Your task to perform on an android device: Add "duracell triple a" to the cart on amazon, then select checkout. Image 0: 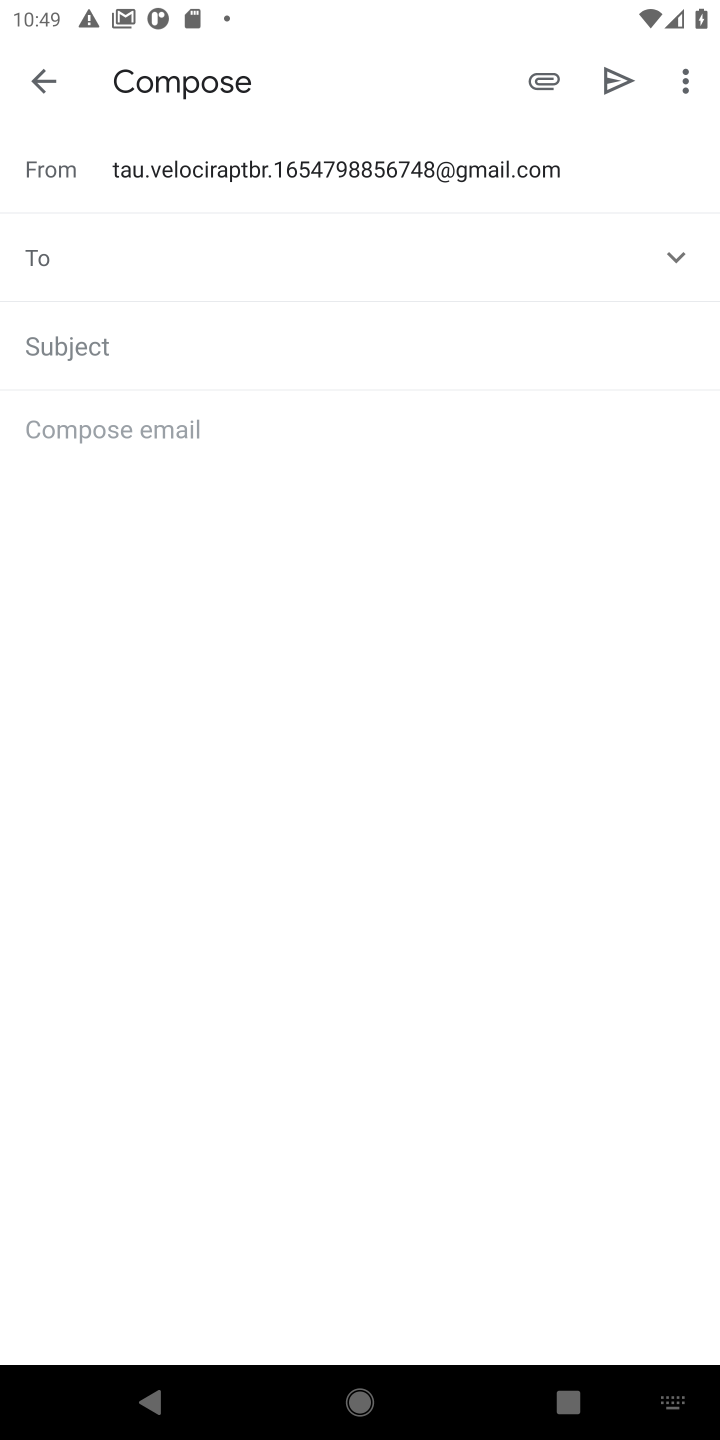
Step 0: press home button
Your task to perform on an android device: Add "duracell triple a" to the cart on amazon, then select checkout. Image 1: 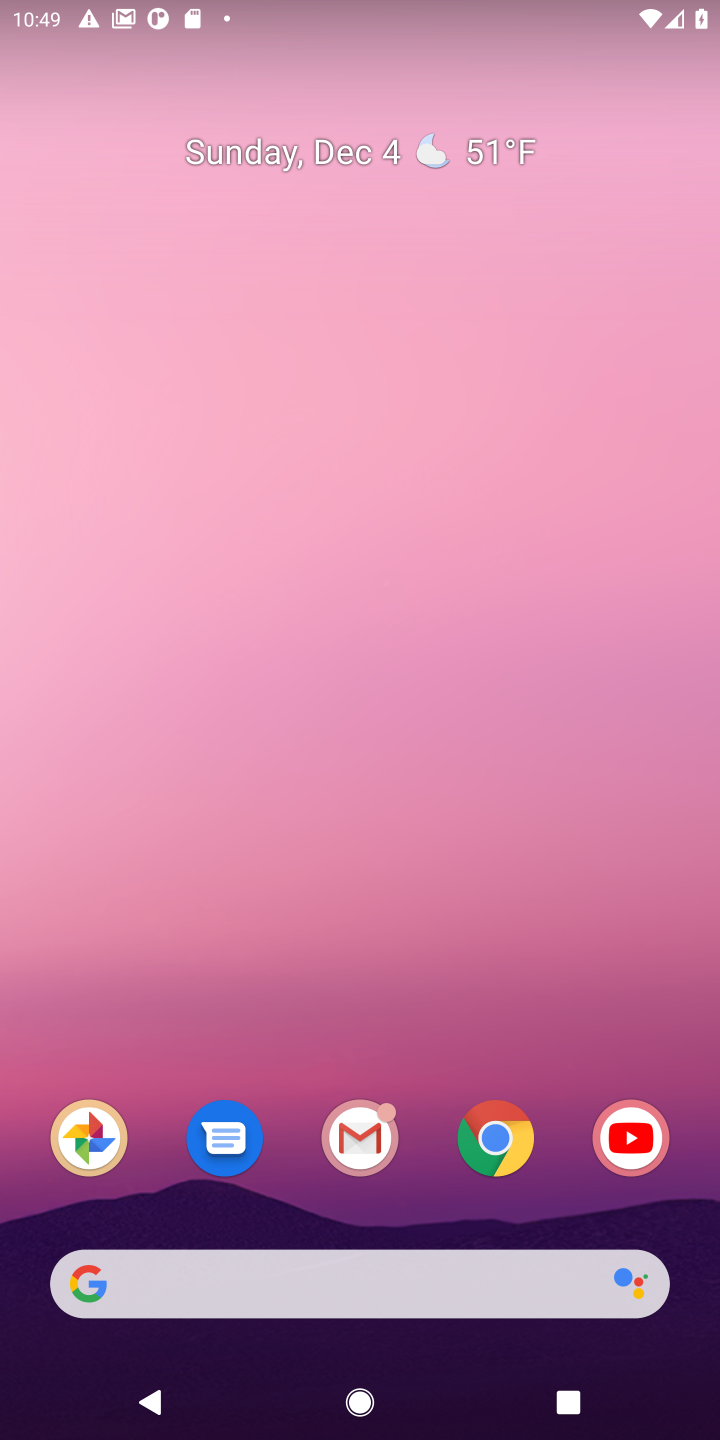
Step 1: click (517, 1143)
Your task to perform on an android device: Add "duracell triple a" to the cart on amazon, then select checkout. Image 2: 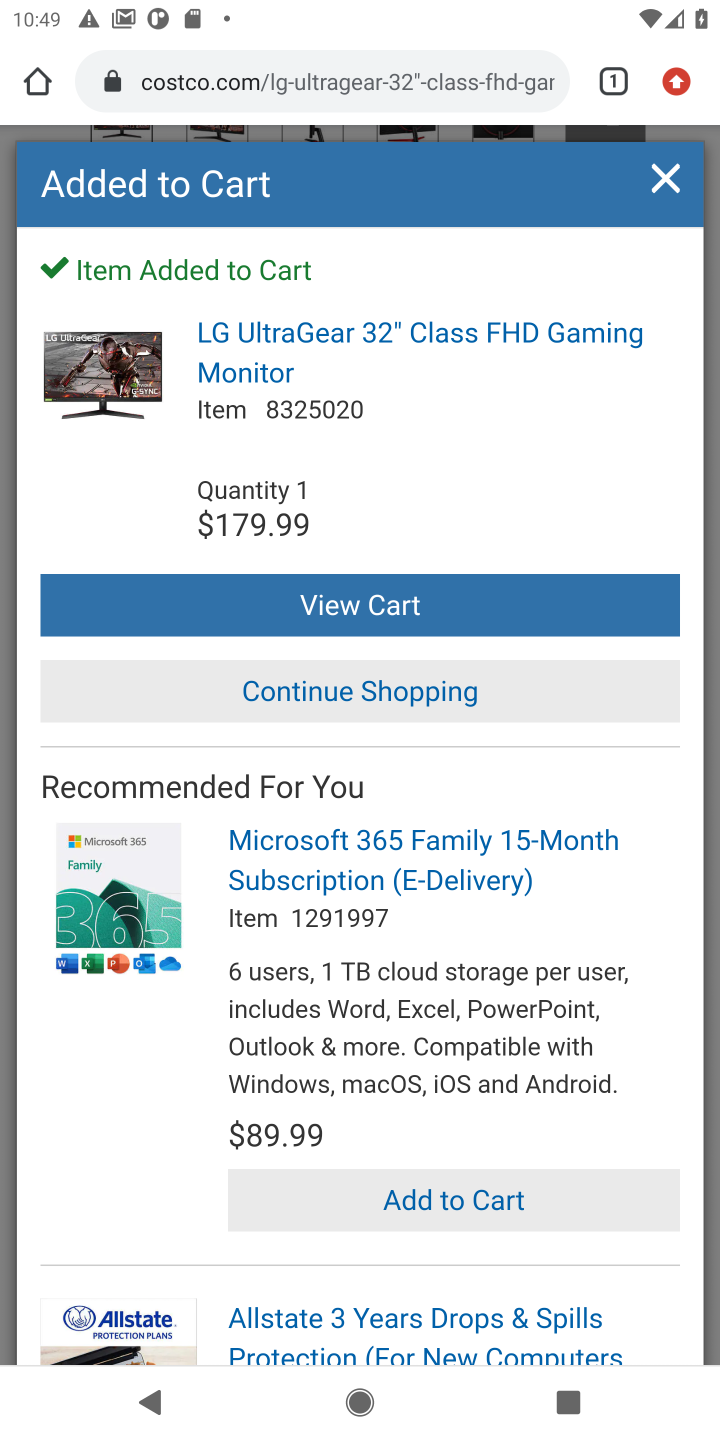
Step 2: click (434, 74)
Your task to perform on an android device: Add "duracell triple a" to the cart on amazon, then select checkout. Image 3: 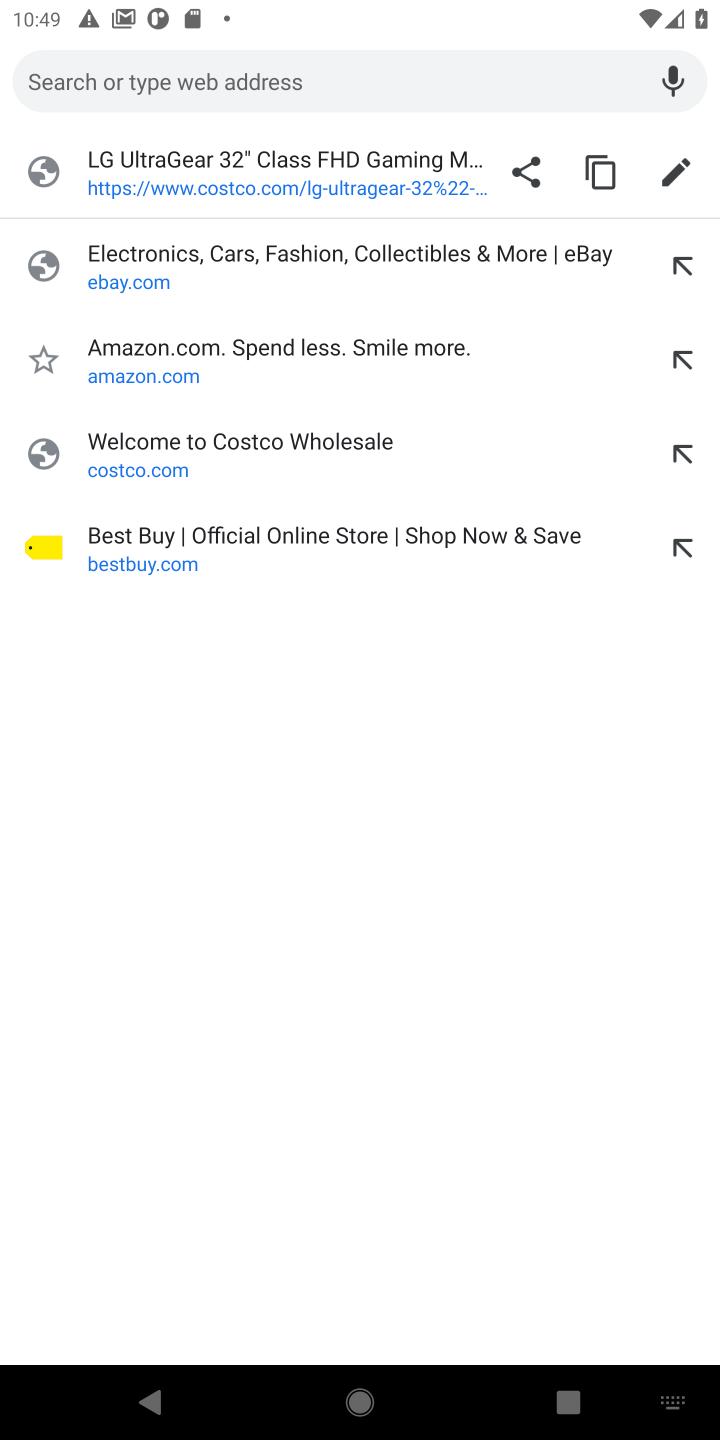
Step 3: click (396, 336)
Your task to perform on an android device: Add "duracell triple a" to the cart on amazon, then select checkout. Image 4: 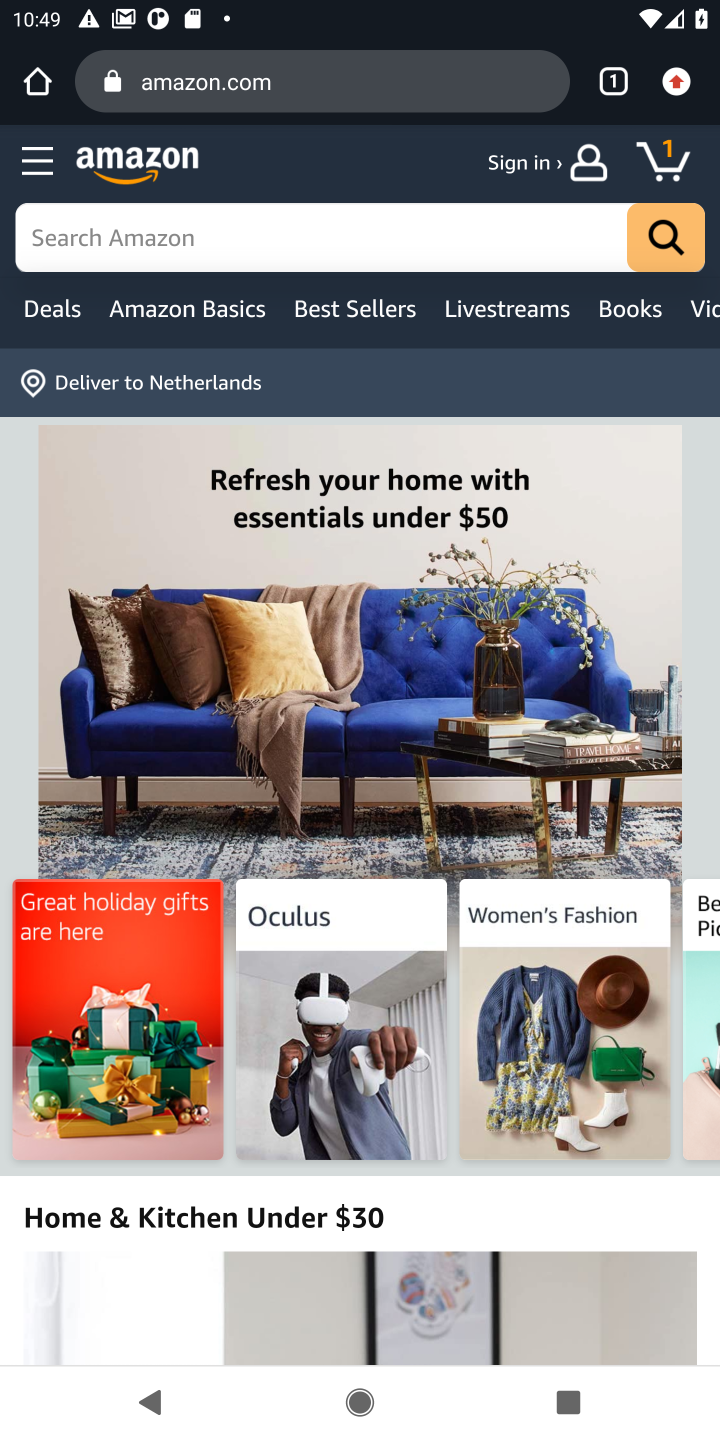
Step 4: click (373, 228)
Your task to perform on an android device: Add "duracell triple a" to the cart on amazon, then select checkout. Image 5: 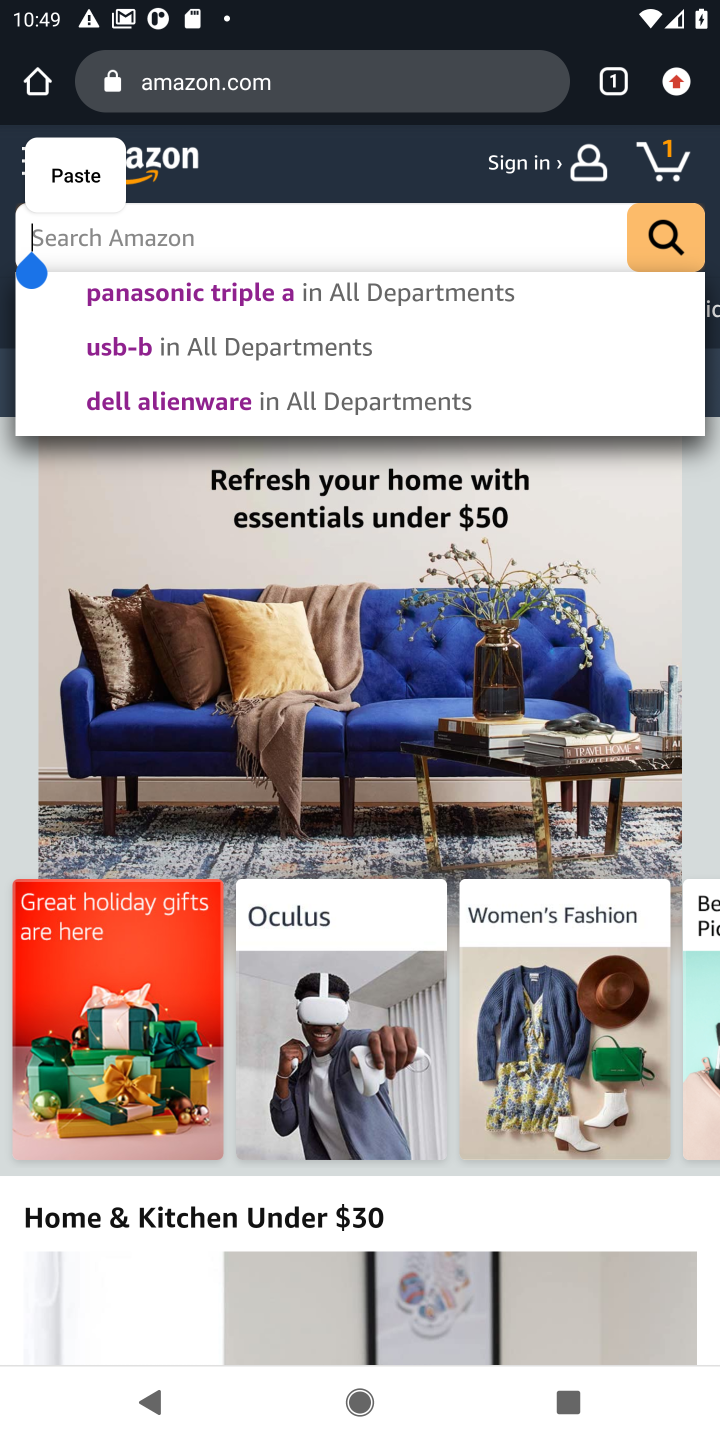
Step 5: press enter
Your task to perform on an android device: Add "duracell triple a" to the cart on amazon, then select checkout. Image 6: 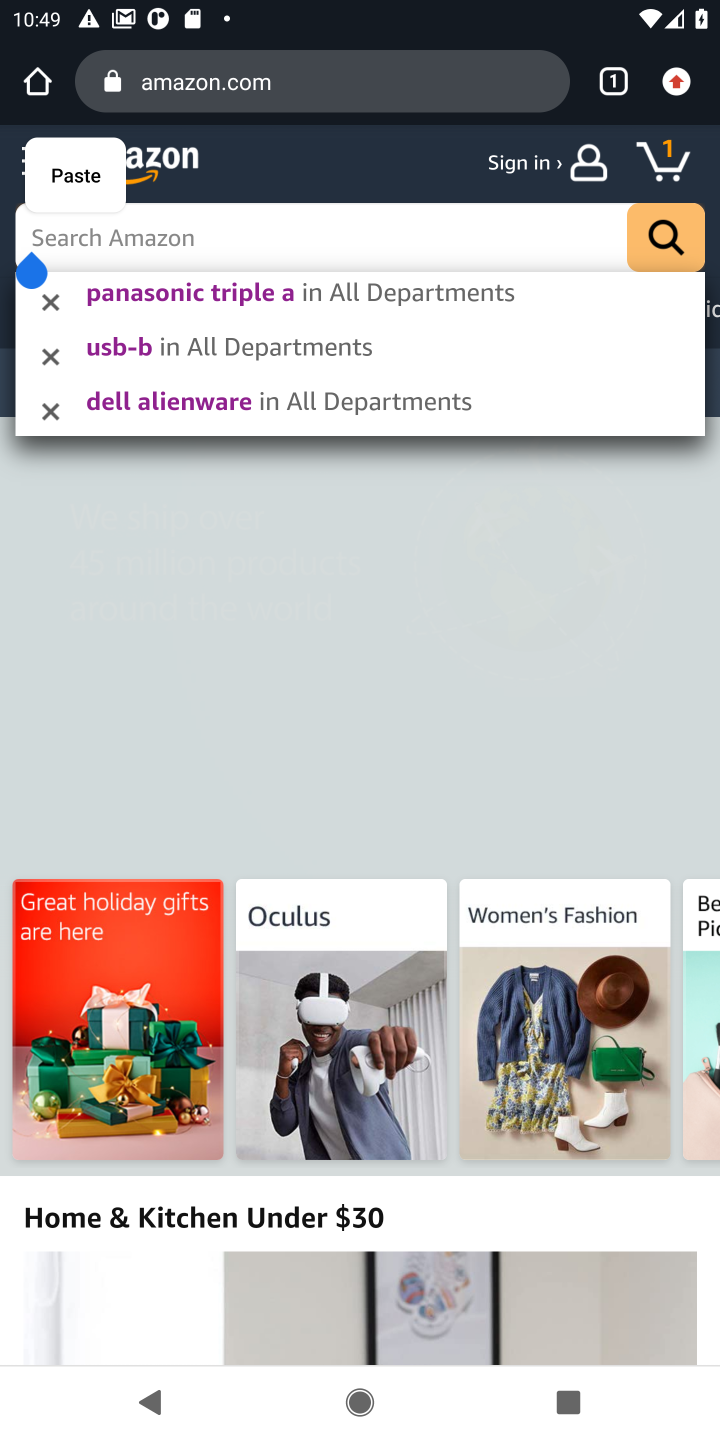
Step 6: type "duracell triple a"
Your task to perform on an android device: Add "duracell triple a" to the cart on amazon, then select checkout. Image 7: 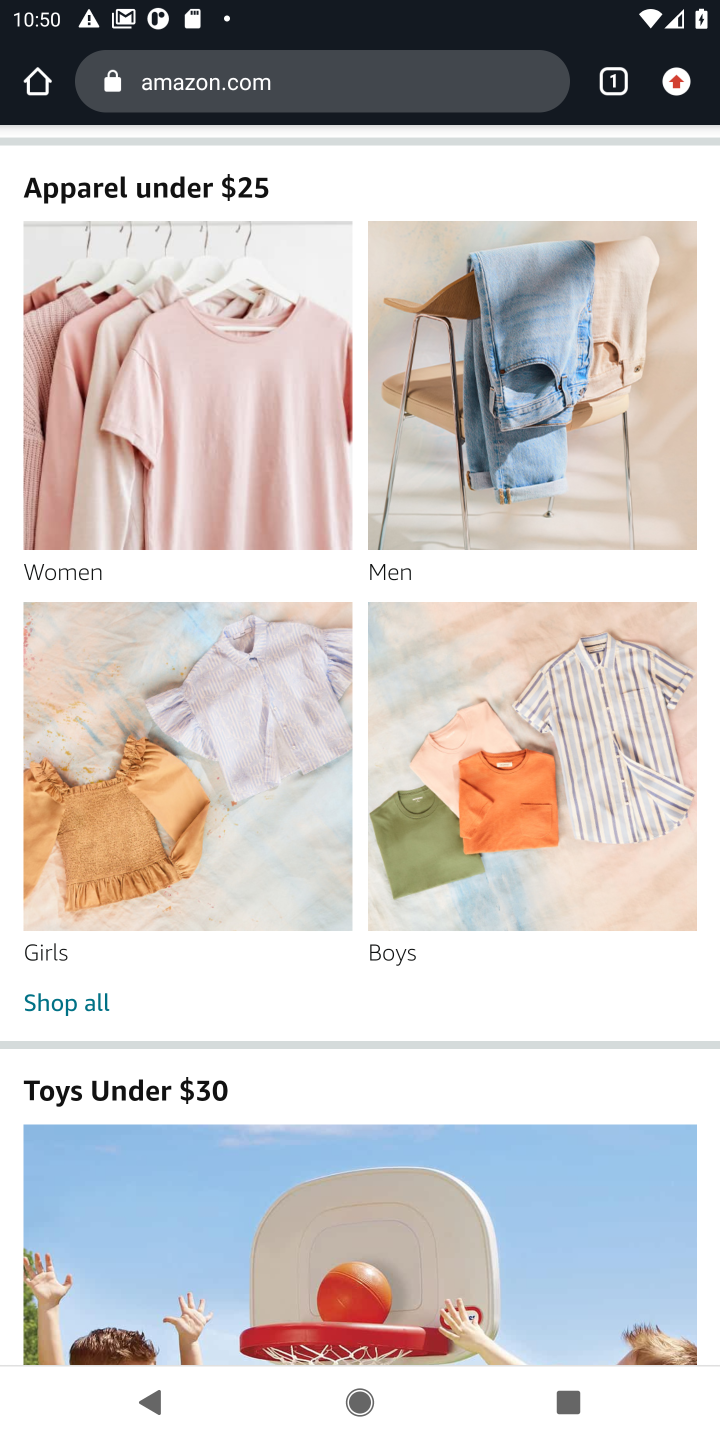
Step 7: drag from (386, 170) to (615, 903)
Your task to perform on an android device: Add "duracell triple a" to the cart on amazon, then select checkout. Image 8: 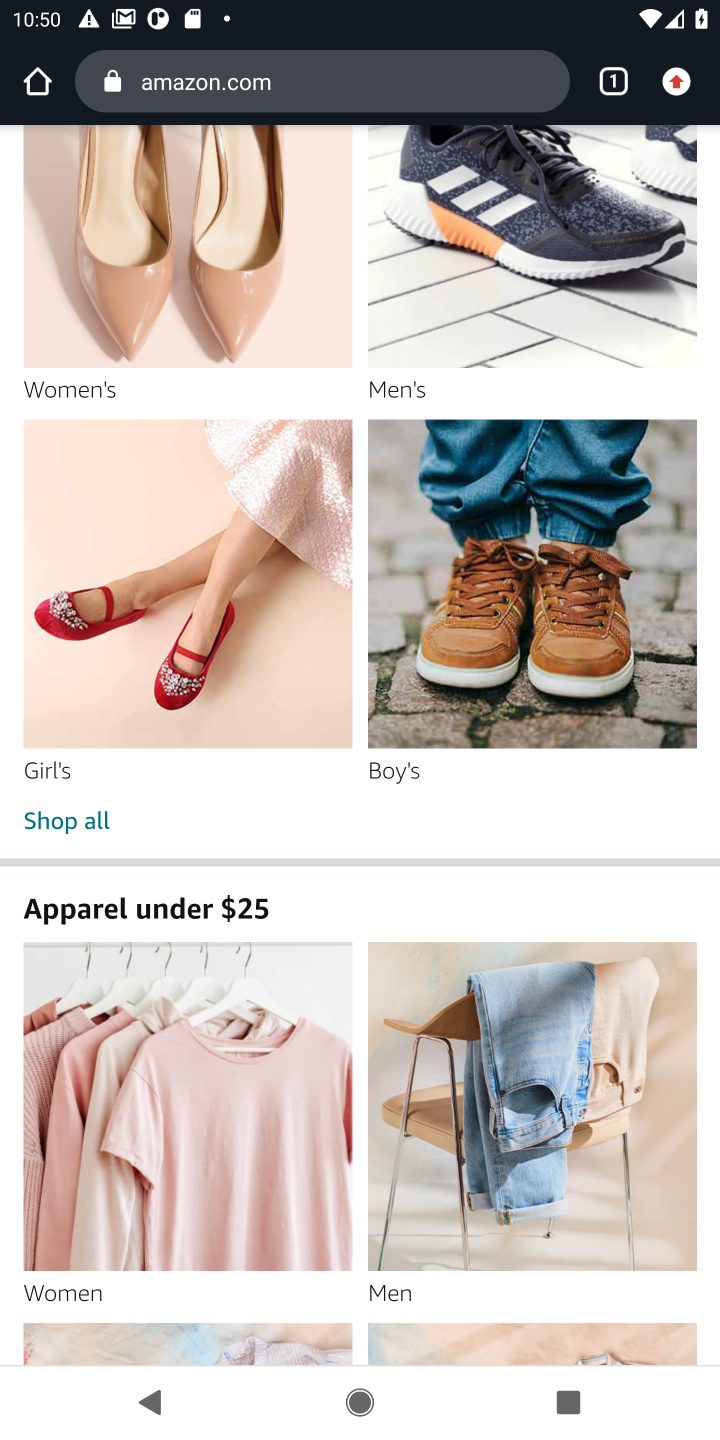
Step 8: click (406, 86)
Your task to perform on an android device: Add "duracell triple a" to the cart on amazon, then select checkout. Image 9: 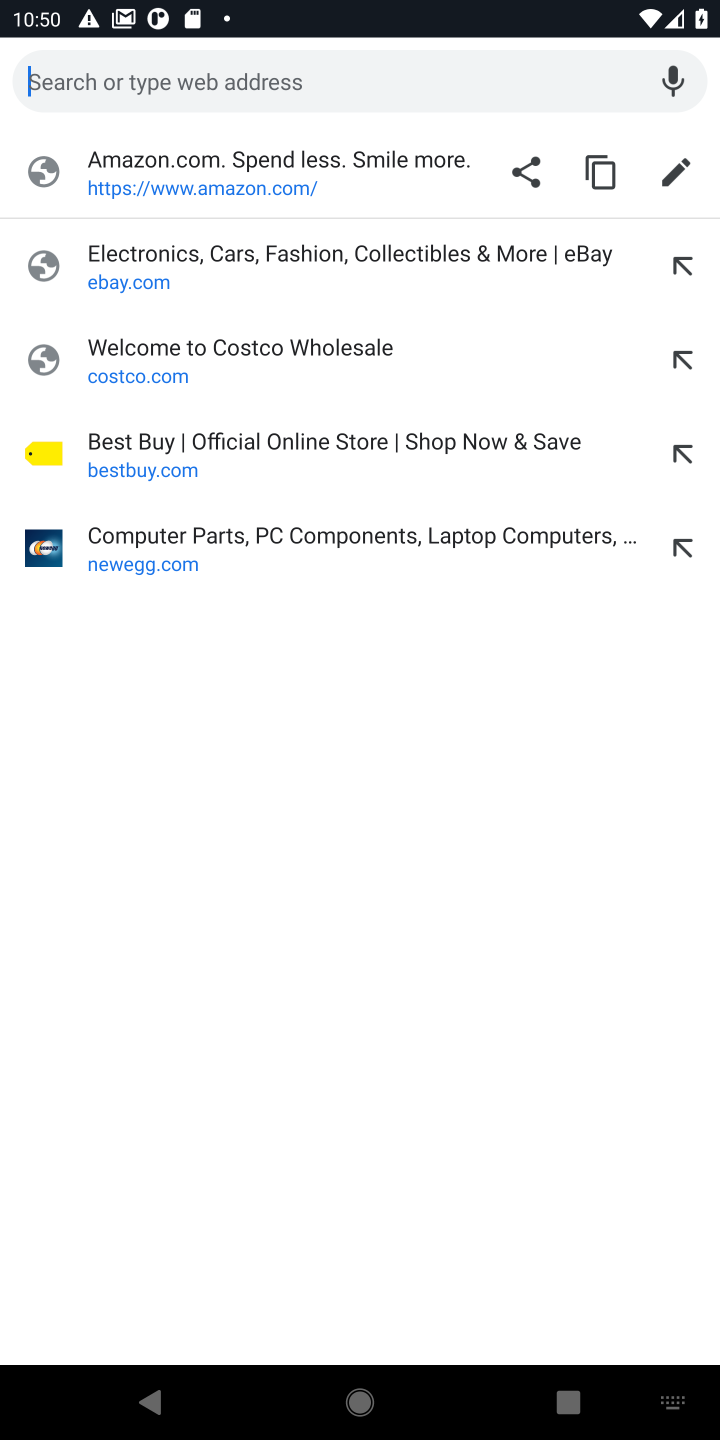
Step 9: click (225, 168)
Your task to perform on an android device: Add "duracell triple a" to the cart on amazon, then select checkout. Image 10: 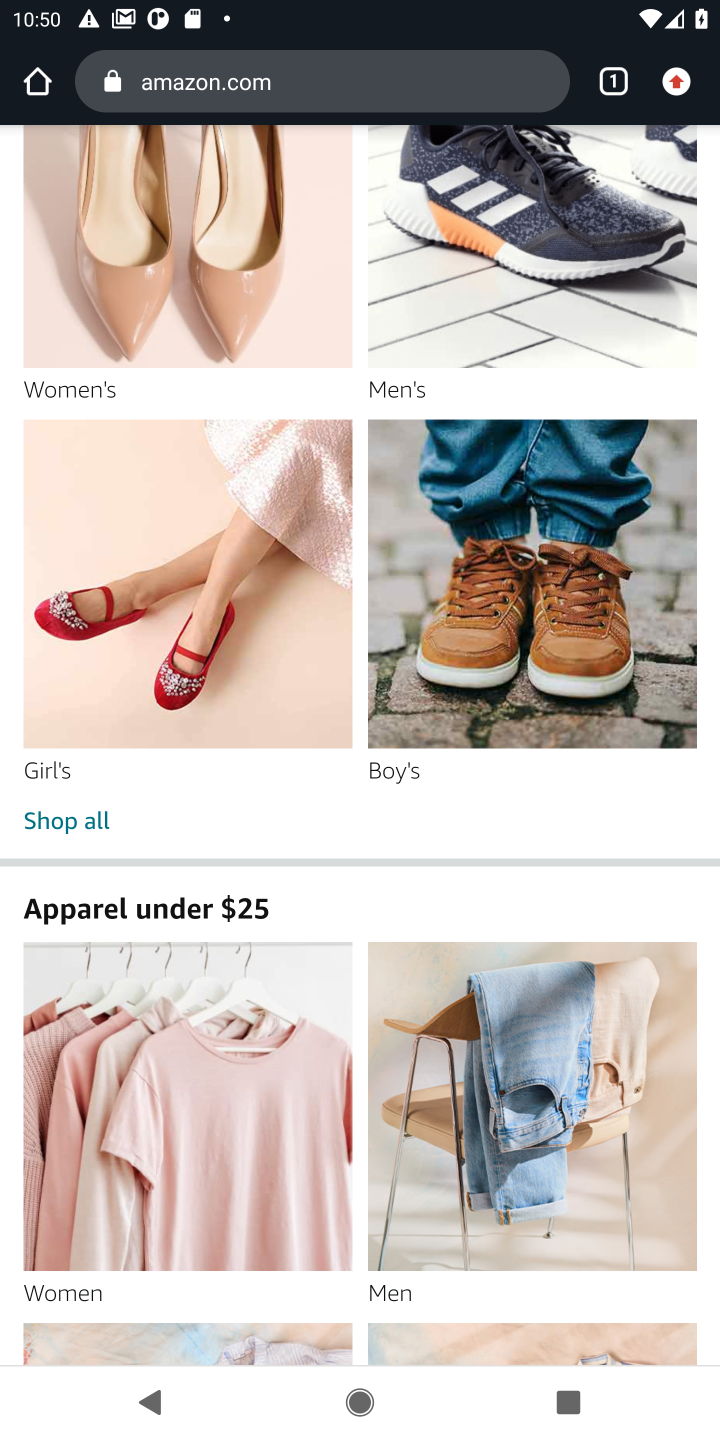
Step 10: click (380, 73)
Your task to perform on an android device: Add "duracell triple a" to the cart on amazon, then select checkout. Image 11: 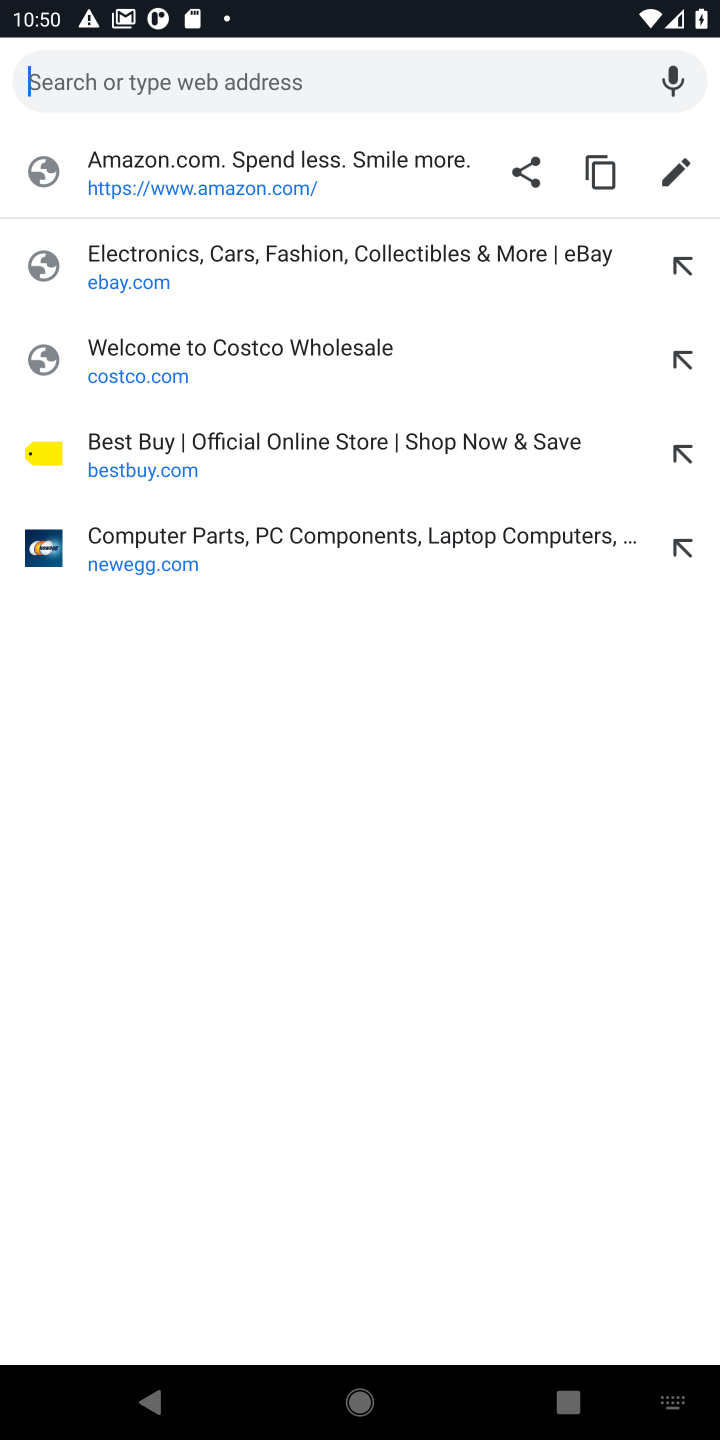
Step 11: press enter
Your task to perform on an android device: Add "duracell triple a" to the cart on amazon, then select checkout. Image 12: 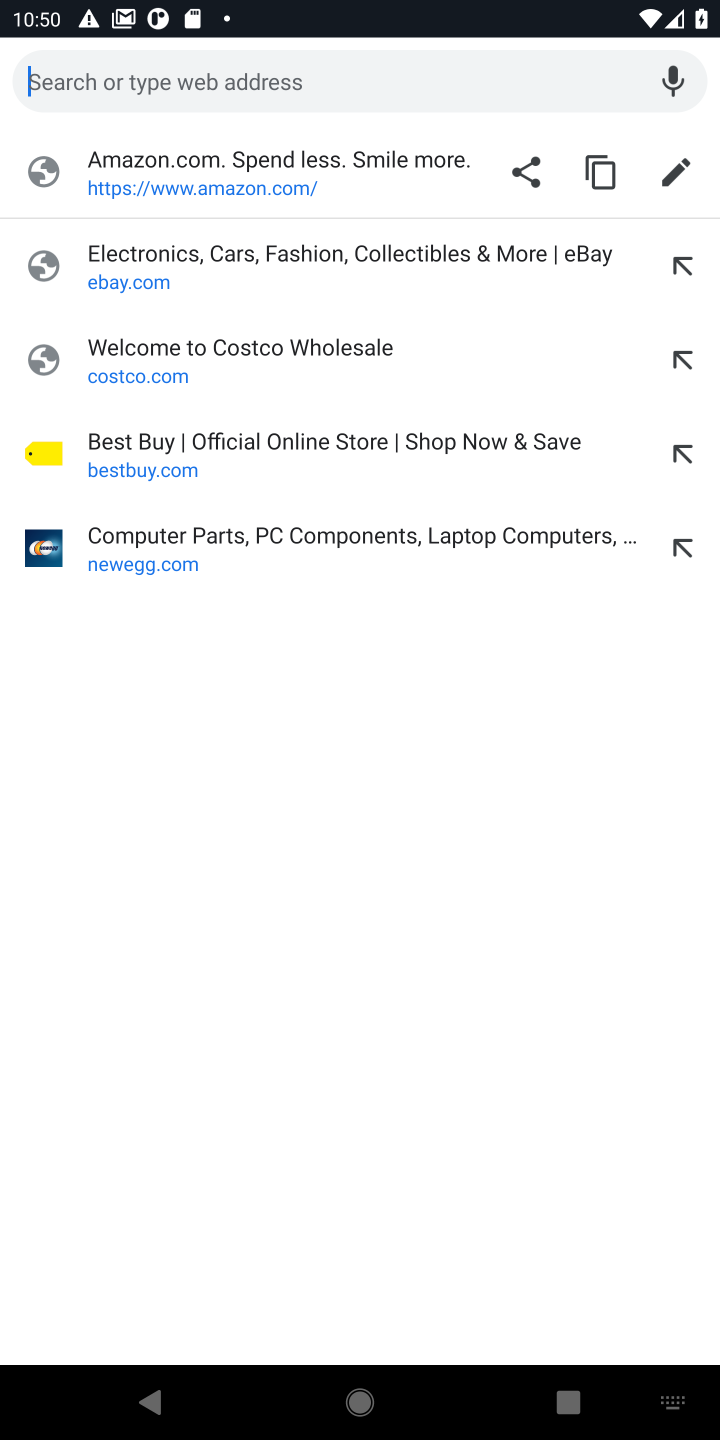
Step 12: type "amazon"
Your task to perform on an android device: Add "duracell triple a" to the cart on amazon, then select checkout. Image 13: 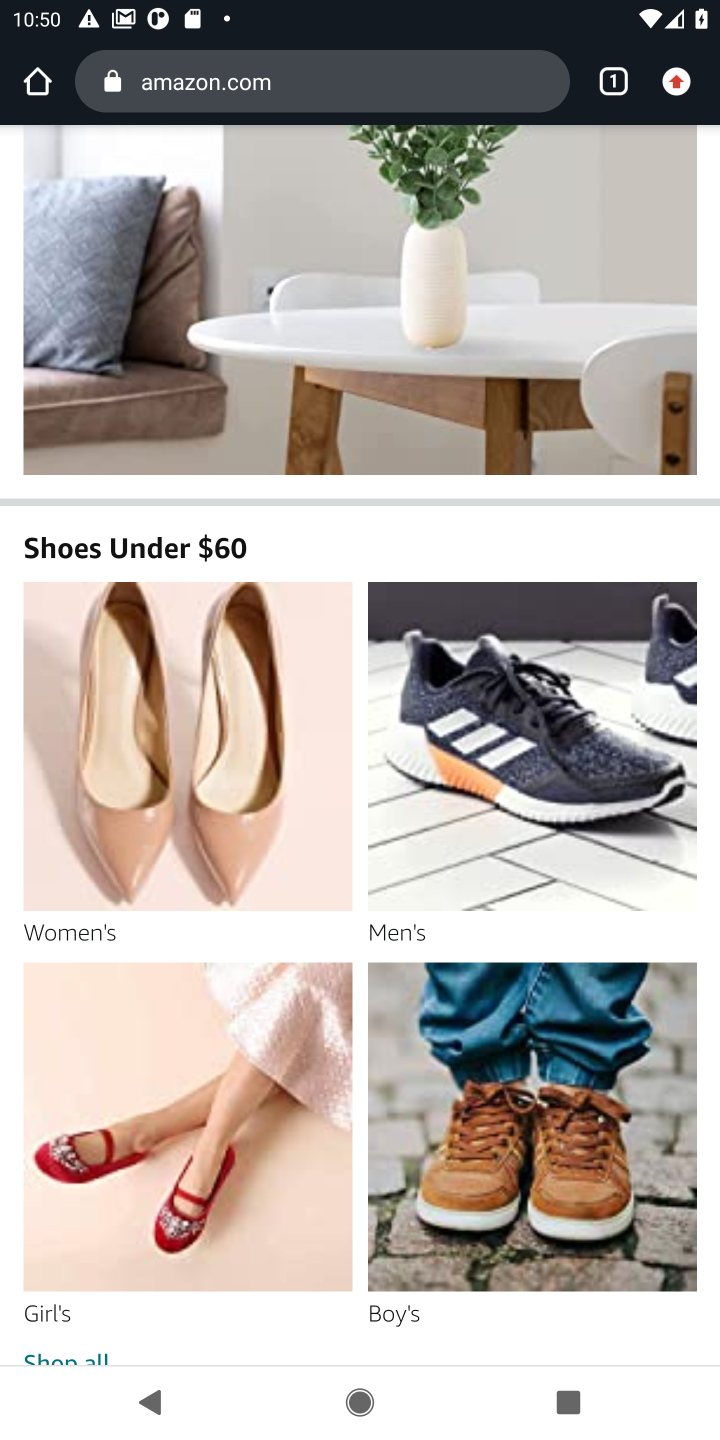
Step 13: drag from (689, 1269) to (701, 1356)
Your task to perform on an android device: Add "duracell triple a" to the cart on amazon, then select checkout. Image 14: 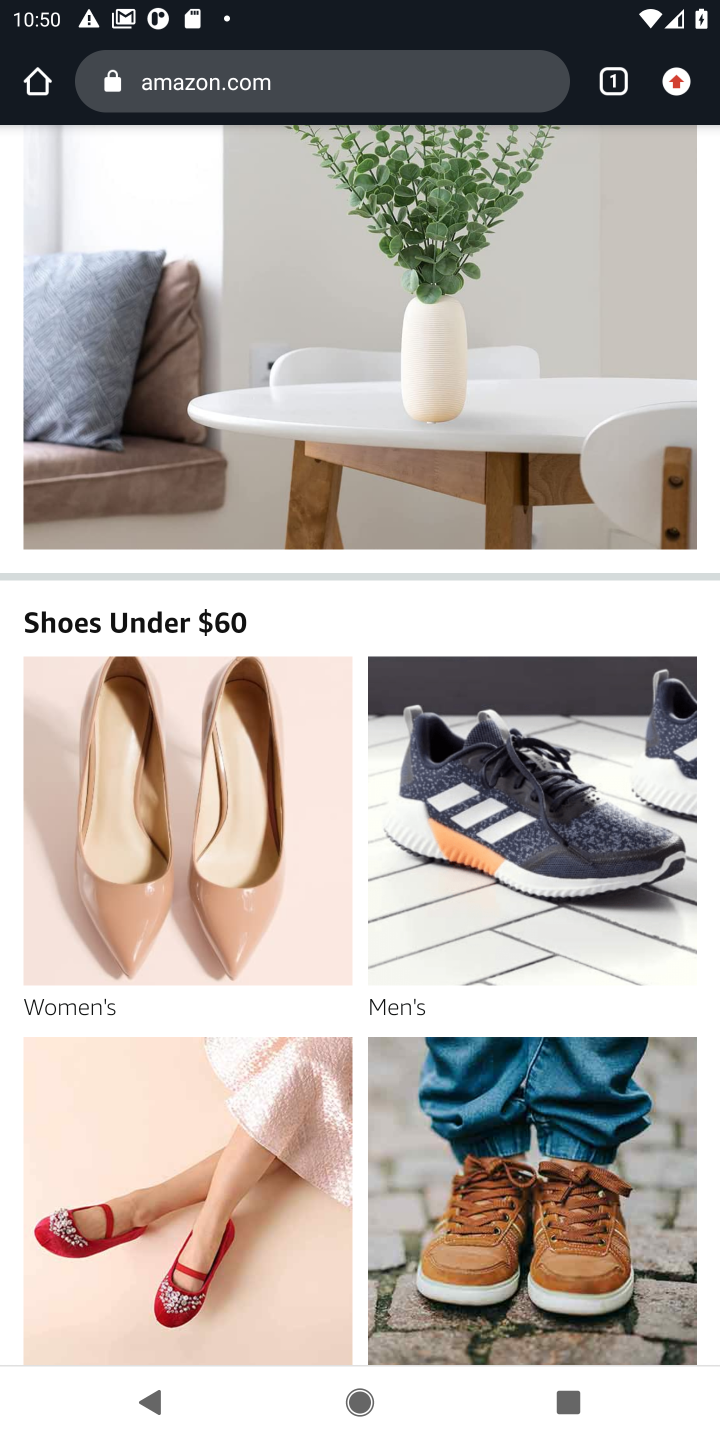
Step 14: drag from (588, 708) to (626, 1103)
Your task to perform on an android device: Add "duracell triple a" to the cart on amazon, then select checkout. Image 15: 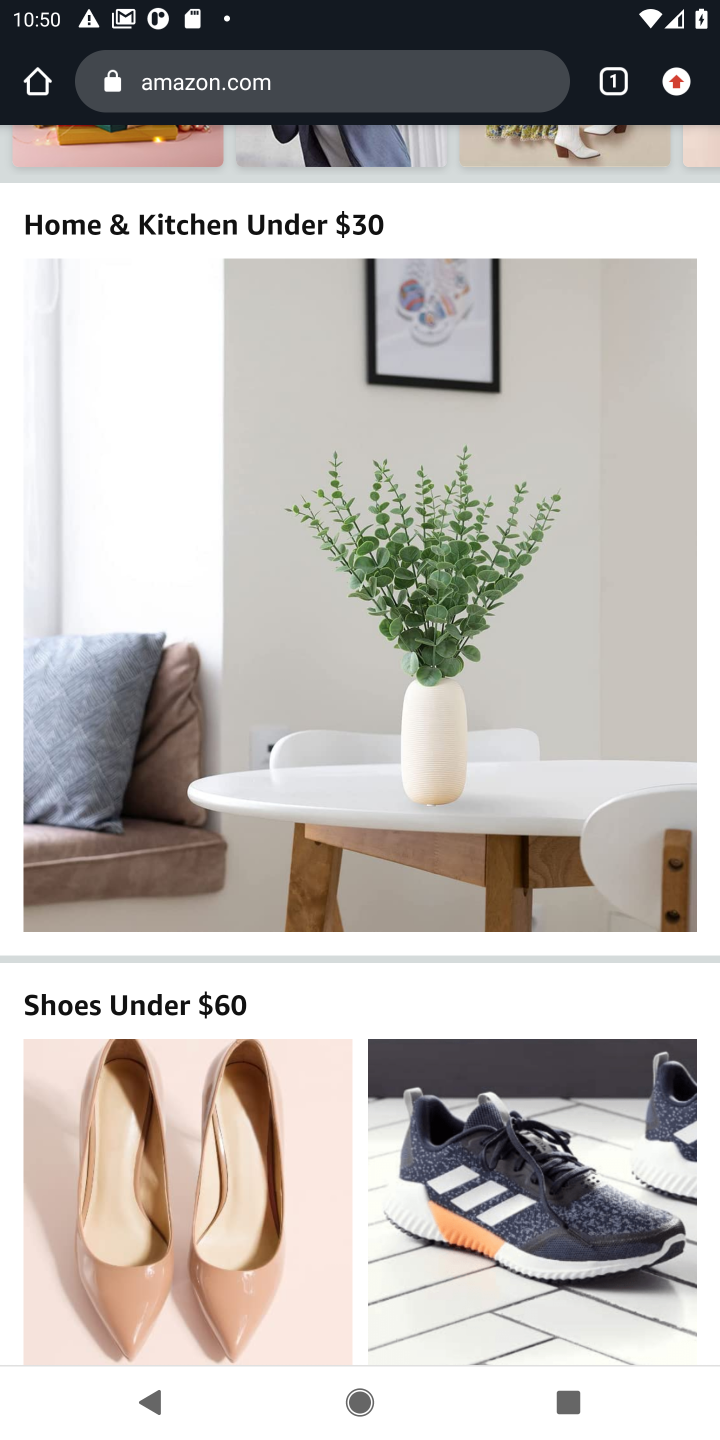
Step 15: drag from (516, 354) to (682, 1176)
Your task to perform on an android device: Add "duracell triple a" to the cart on amazon, then select checkout. Image 16: 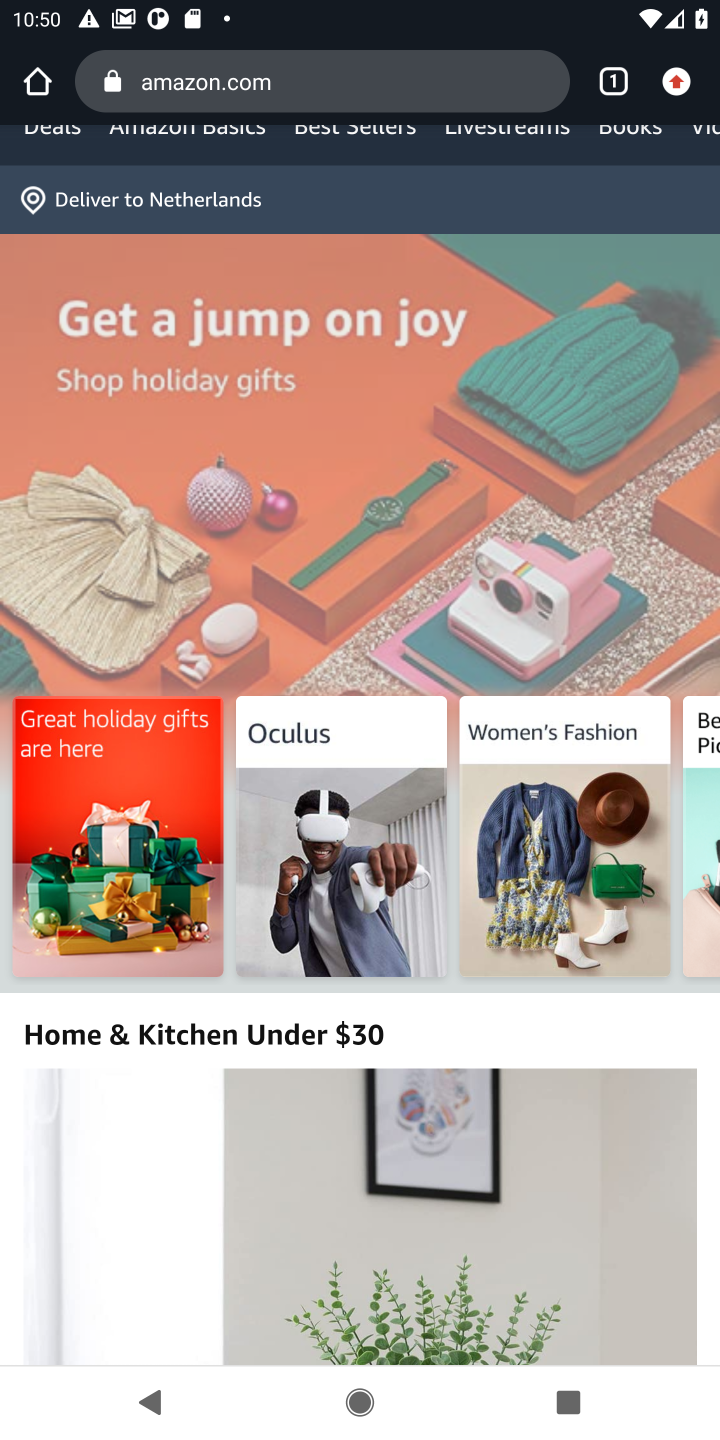
Step 16: drag from (588, 336) to (642, 979)
Your task to perform on an android device: Add "duracell triple a" to the cart on amazon, then select checkout. Image 17: 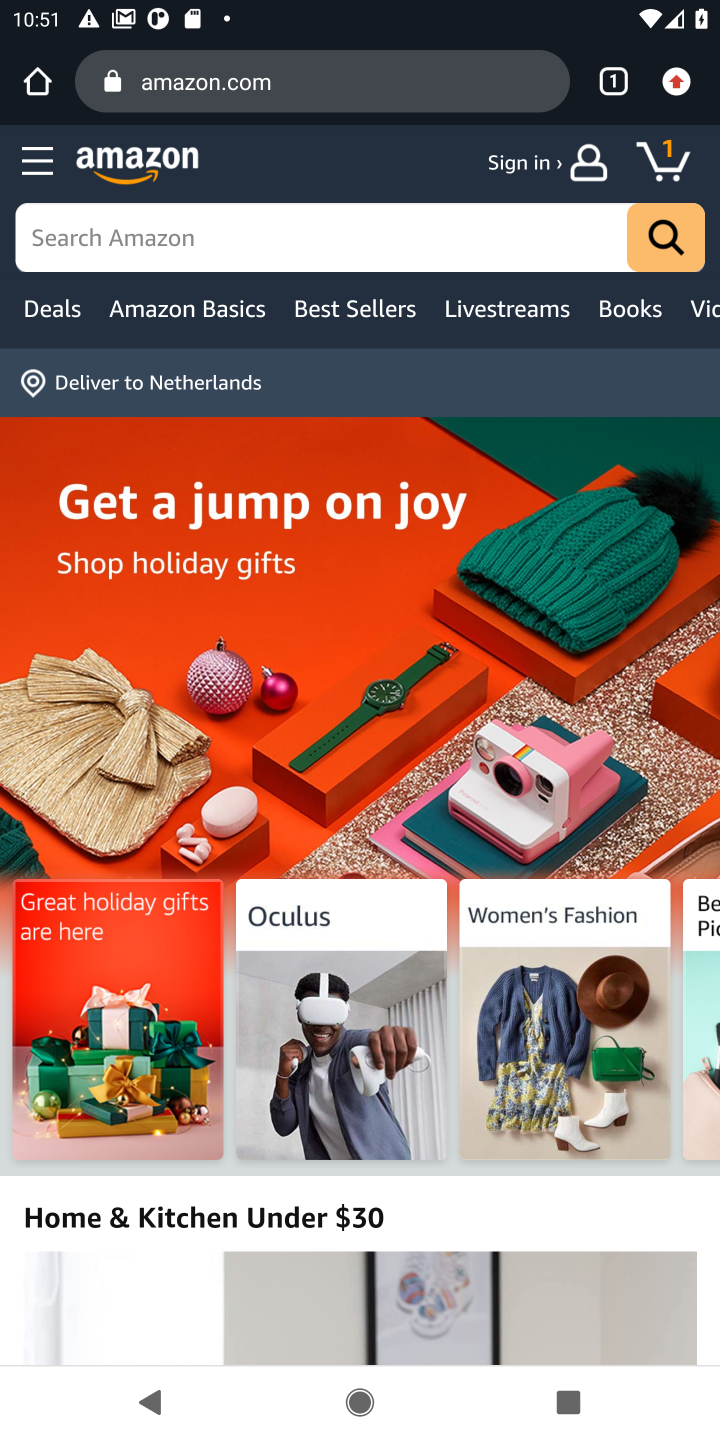
Step 17: click (557, 235)
Your task to perform on an android device: Add "duracell triple a" to the cart on amazon, then select checkout. Image 18: 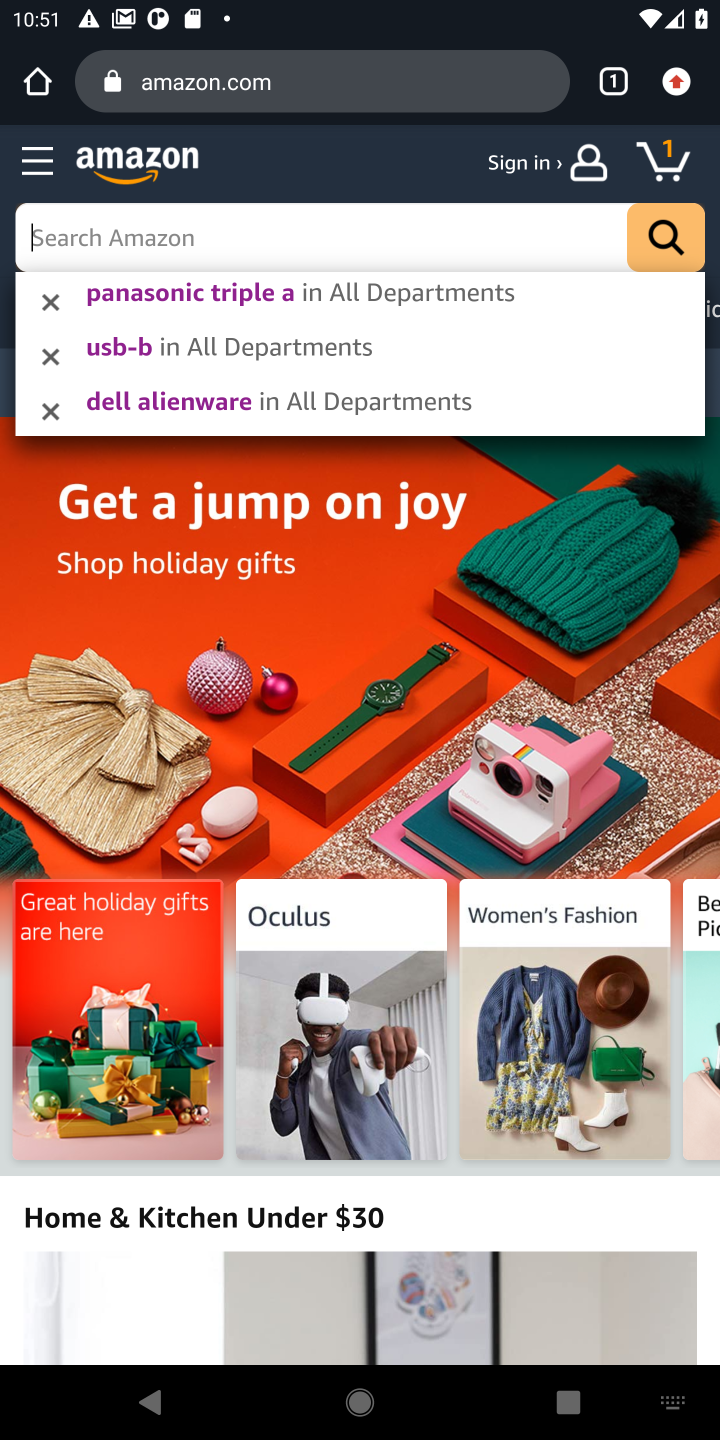
Step 18: press enter
Your task to perform on an android device: Add "duracell triple a" to the cart on amazon, then select checkout. Image 19: 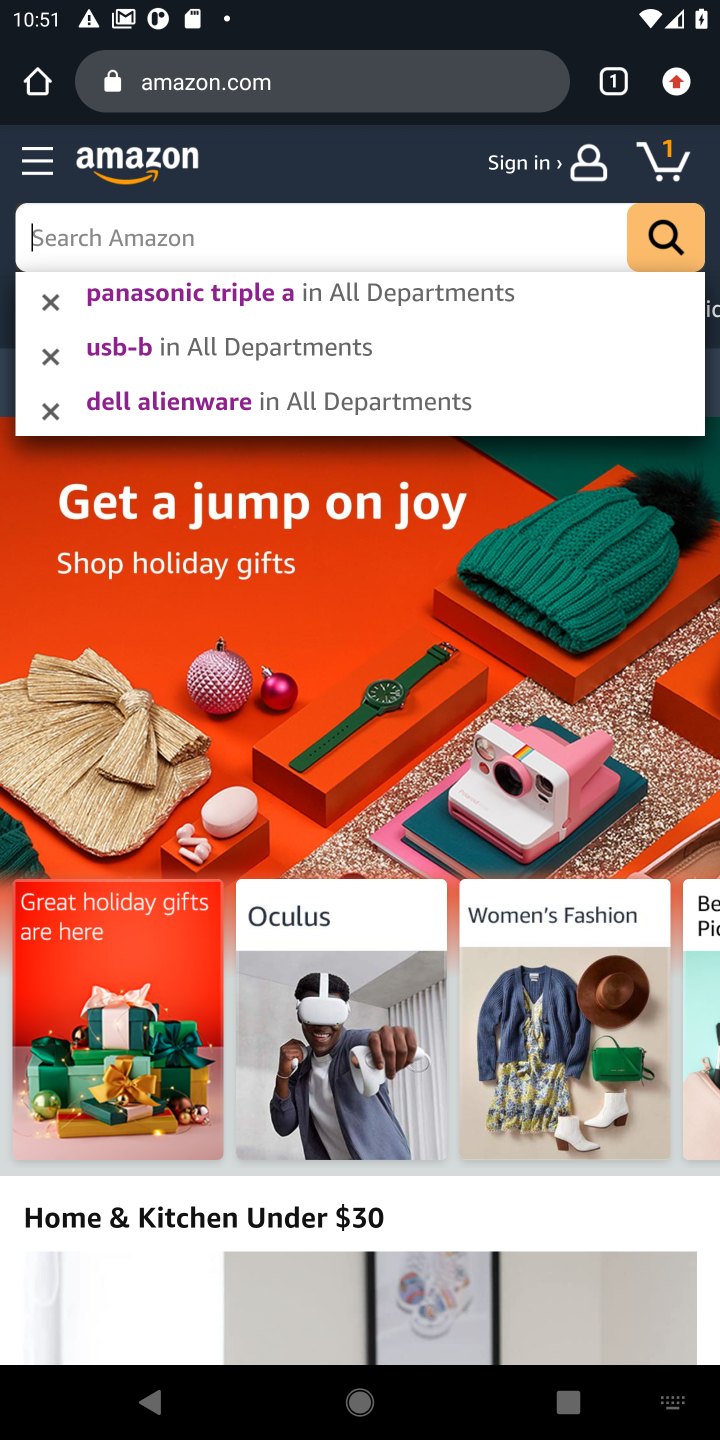
Step 19: type "duracell triple a"
Your task to perform on an android device: Add "duracell triple a" to the cart on amazon, then select checkout. Image 20: 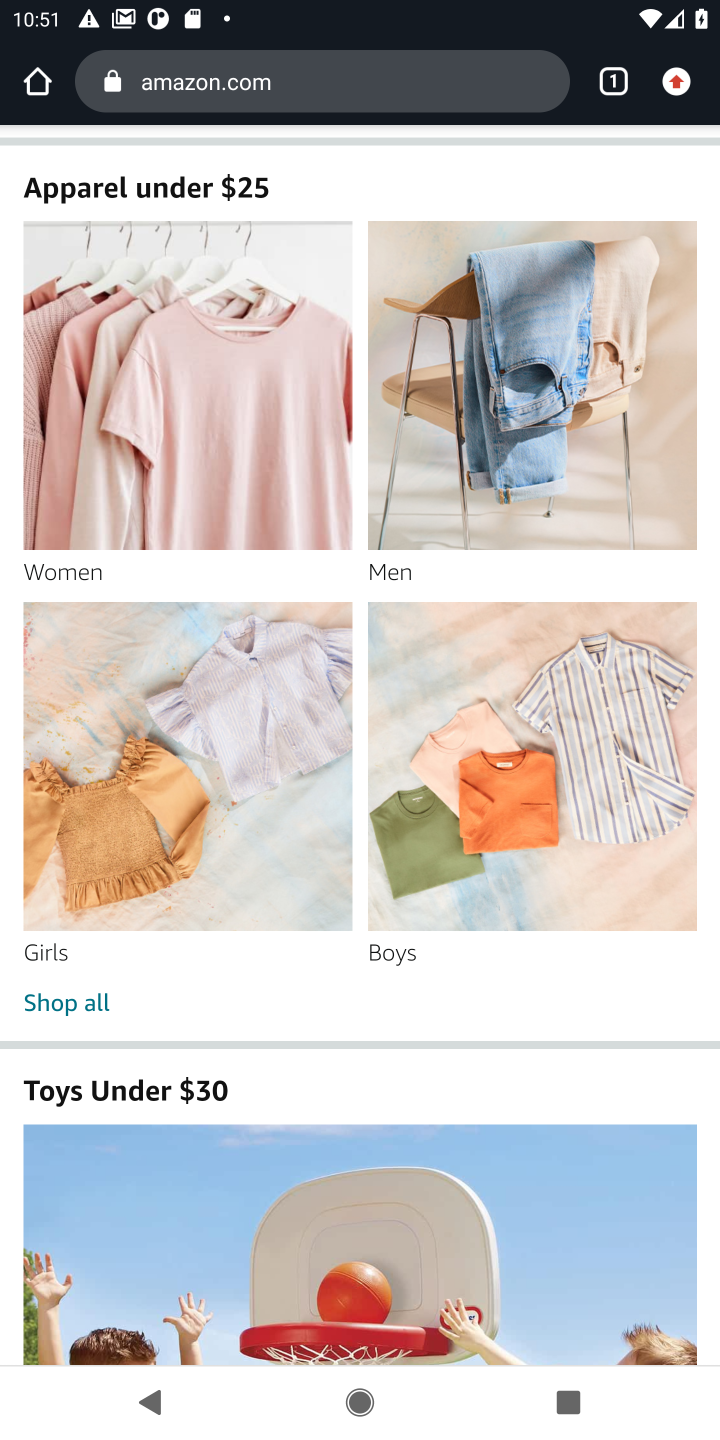
Step 20: task complete